Your task to perform on an android device: turn off sleep mode Image 0: 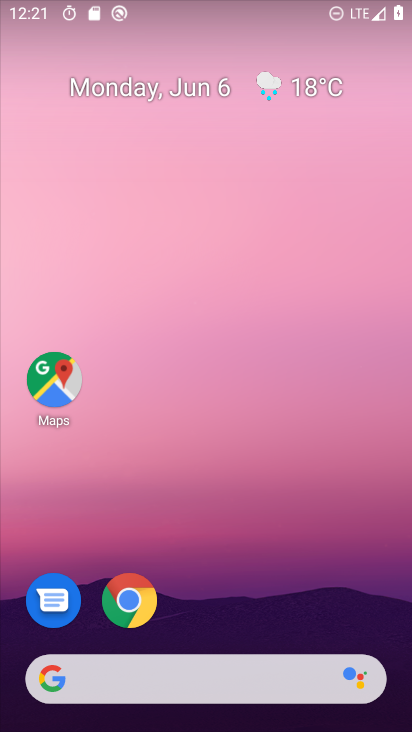
Step 0: drag from (185, 628) to (196, 222)
Your task to perform on an android device: turn off sleep mode Image 1: 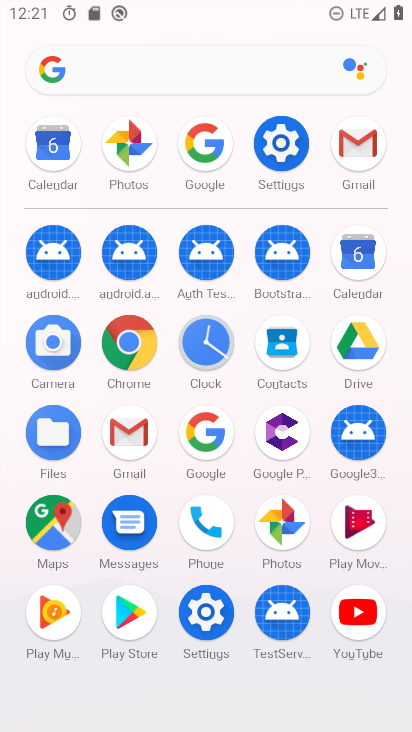
Step 1: click (267, 146)
Your task to perform on an android device: turn off sleep mode Image 2: 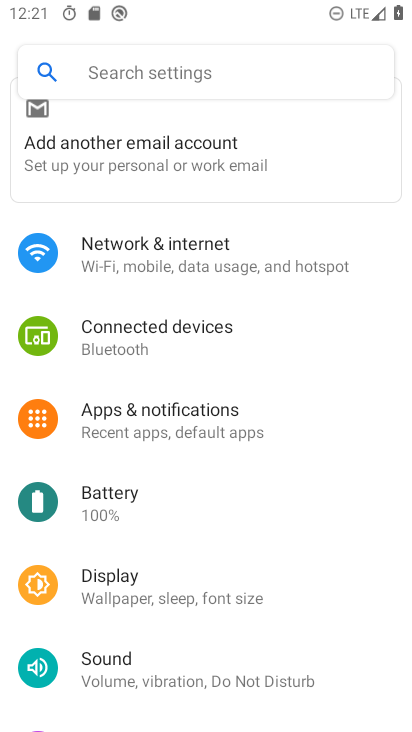
Step 2: click (146, 597)
Your task to perform on an android device: turn off sleep mode Image 3: 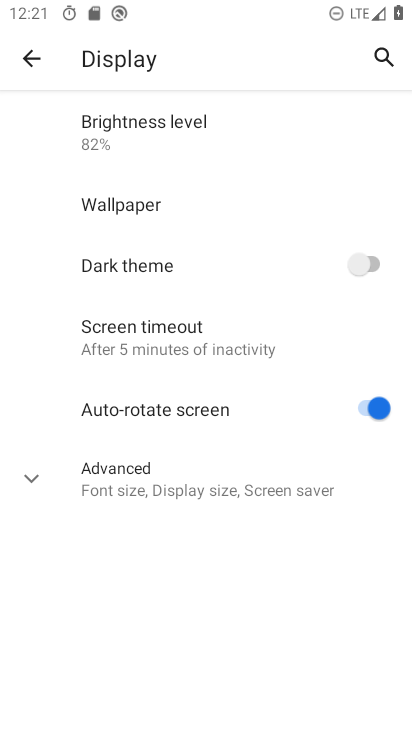
Step 3: click (169, 350)
Your task to perform on an android device: turn off sleep mode Image 4: 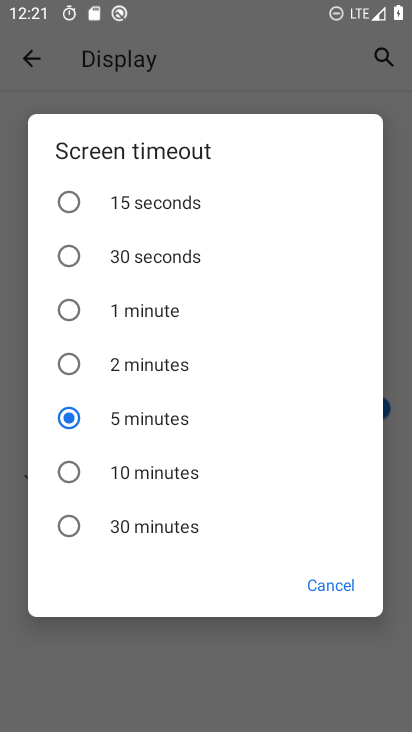
Step 4: click (133, 318)
Your task to perform on an android device: turn off sleep mode Image 5: 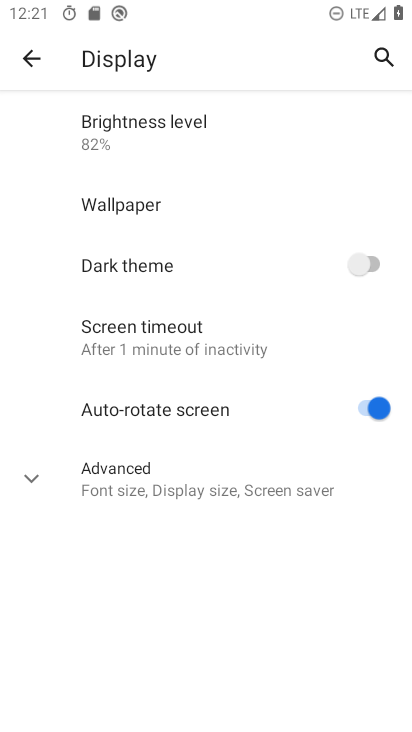
Step 5: task complete